Your task to perform on an android device: clear all cookies in the chrome app Image 0: 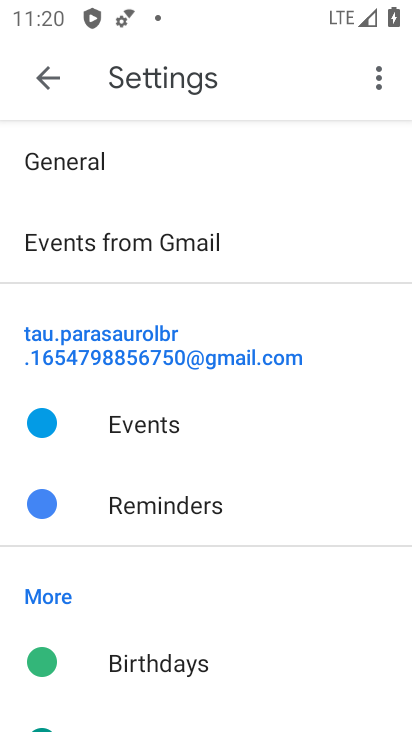
Step 0: press back button
Your task to perform on an android device: clear all cookies in the chrome app Image 1: 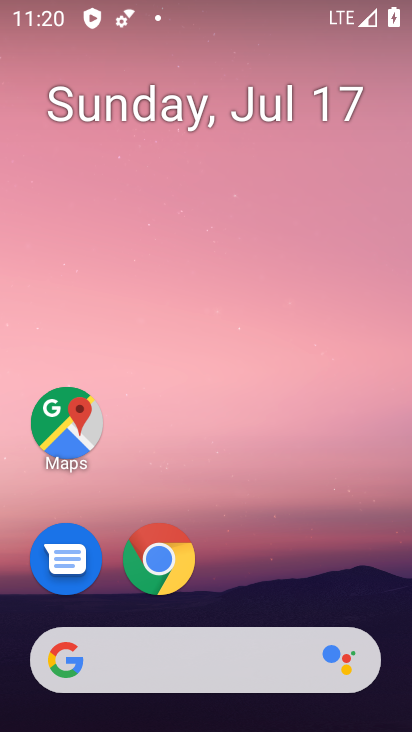
Step 1: click (155, 548)
Your task to perform on an android device: clear all cookies in the chrome app Image 2: 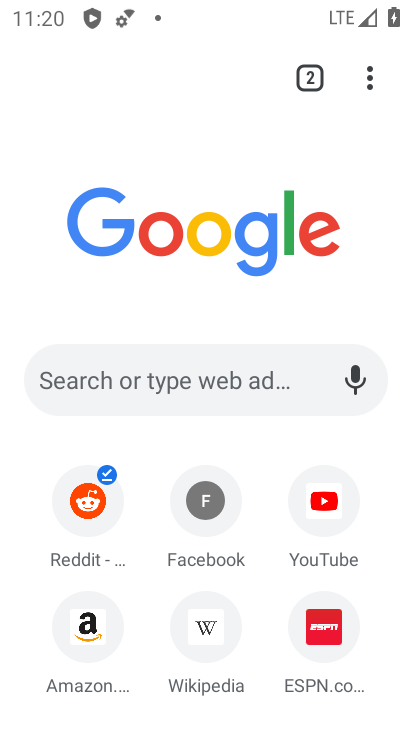
Step 2: drag from (372, 73) to (171, 612)
Your task to perform on an android device: clear all cookies in the chrome app Image 3: 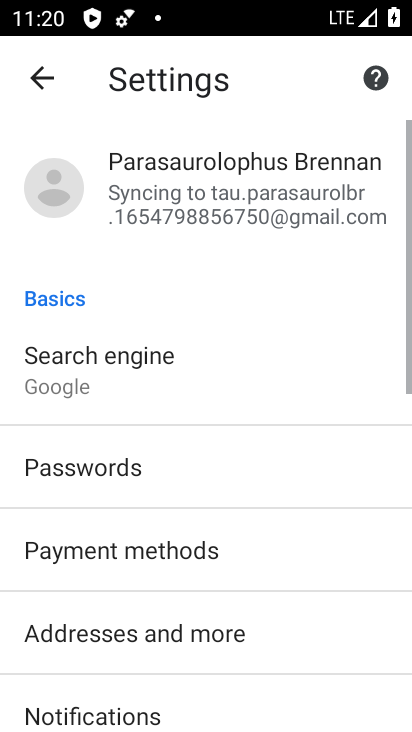
Step 3: click (62, 69)
Your task to perform on an android device: clear all cookies in the chrome app Image 4: 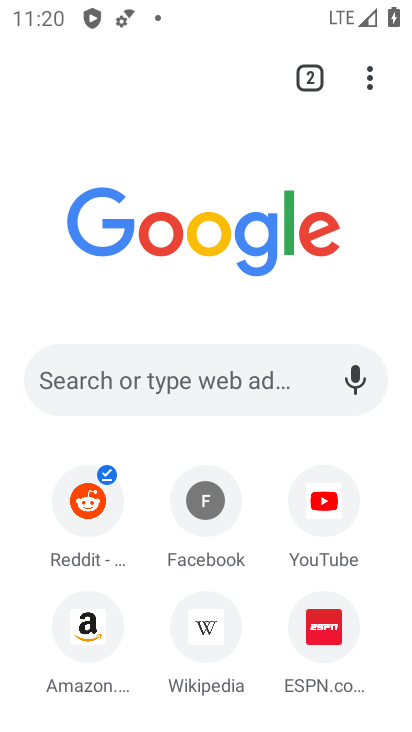
Step 4: drag from (370, 71) to (96, 430)
Your task to perform on an android device: clear all cookies in the chrome app Image 5: 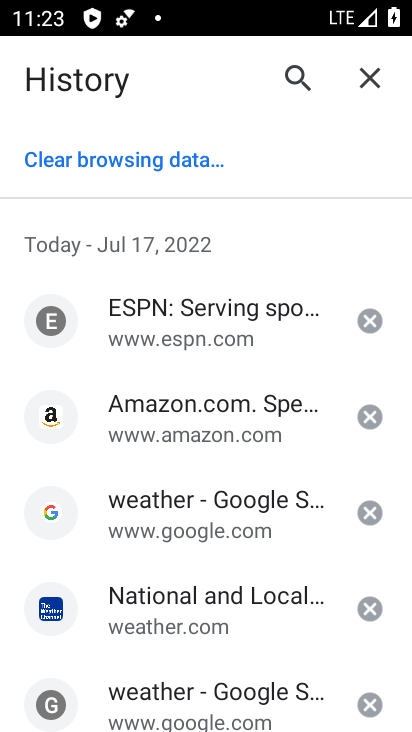
Step 5: click (116, 170)
Your task to perform on an android device: clear all cookies in the chrome app Image 6: 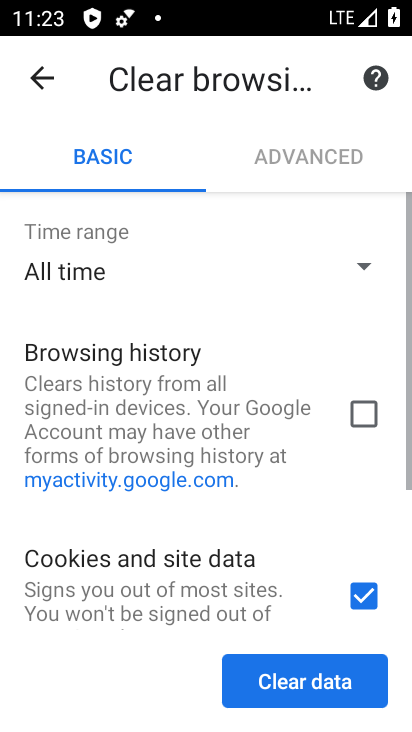
Step 6: drag from (238, 555) to (290, 286)
Your task to perform on an android device: clear all cookies in the chrome app Image 7: 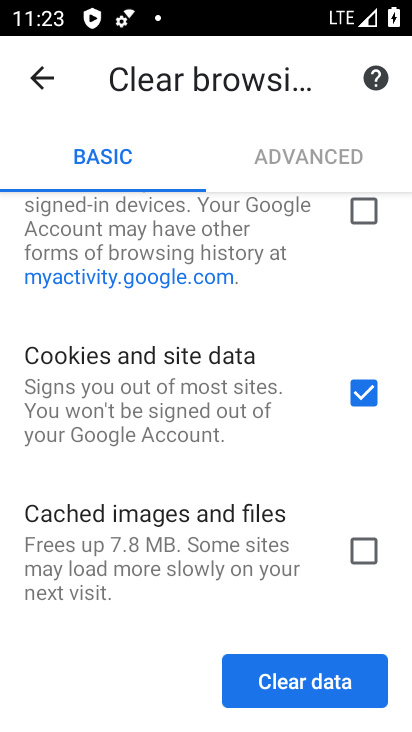
Step 7: click (339, 679)
Your task to perform on an android device: clear all cookies in the chrome app Image 8: 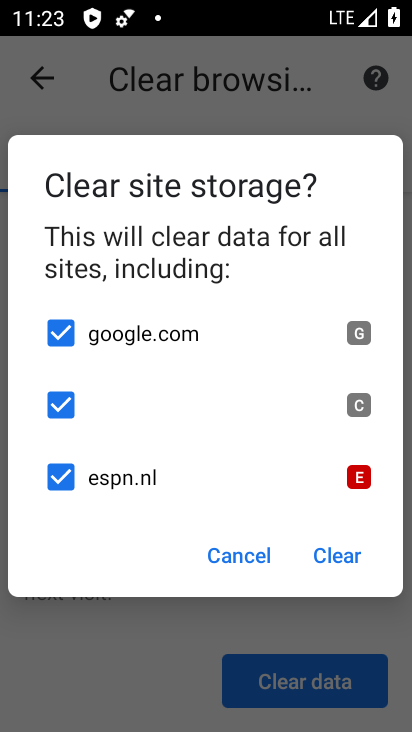
Step 8: click (344, 564)
Your task to perform on an android device: clear all cookies in the chrome app Image 9: 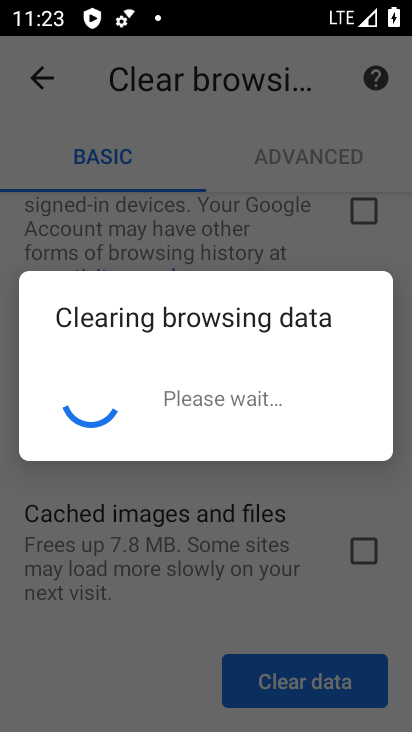
Step 9: task complete